Your task to perform on an android device: see sites visited before in the chrome app Image 0: 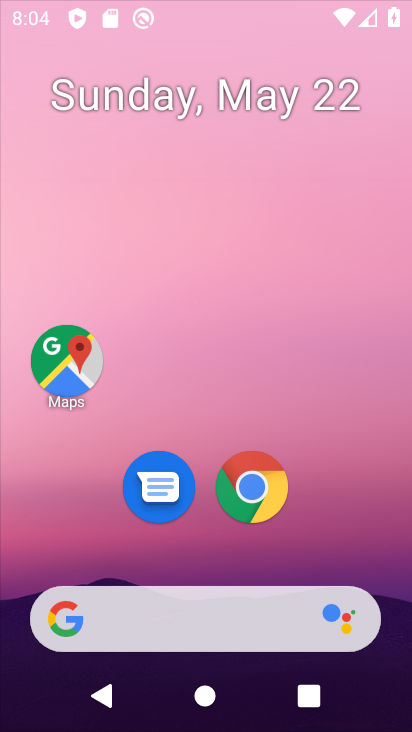
Step 0: drag from (396, 16) to (10, 413)
Your task to perform on an android device: see sites visited before in the chrome app Image 1: 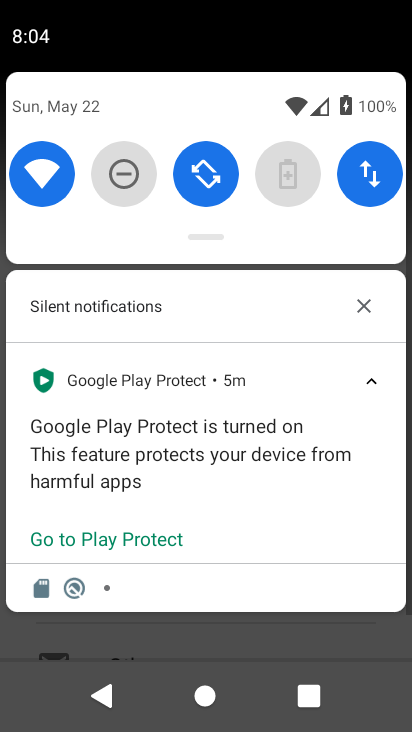
Step 1: drag from (266, 633) to (280, 91)
Your task to perform on an android device: see sites visited before in the chrome app Image 2: 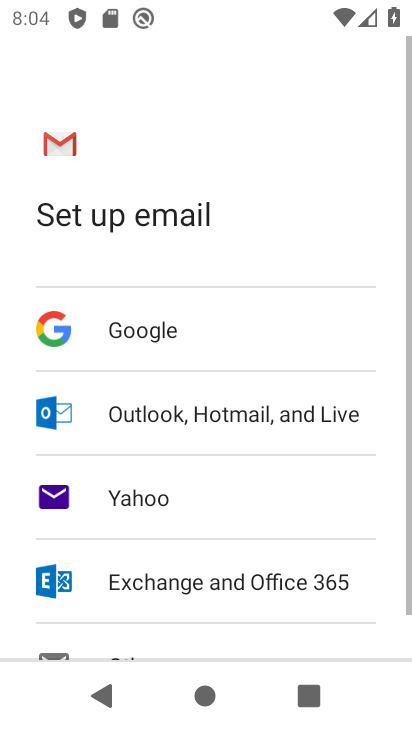
Step 2: press home button
Your task to perform on an android device: see sites visited before in the chrome app Image 3: 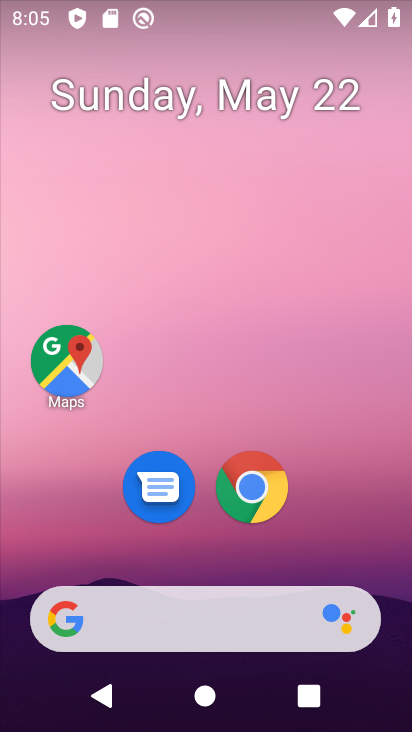
Step 3: click (253, 464)
Your task to perform on an android device: see sites visited before in the chrome app Image 4: 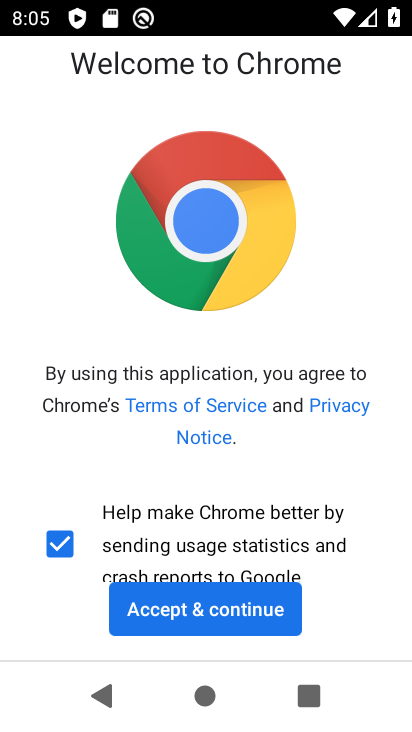
Step 4: click (224, 603)
Your task to perform on an android device: see sites visited before in the chrome app Image 5: 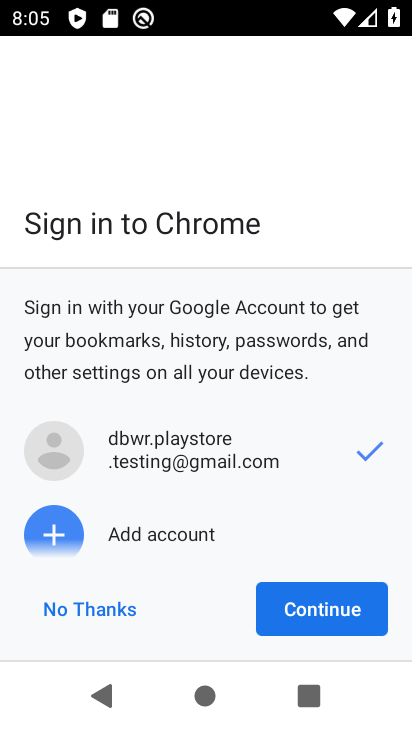
Step 5: click (73, 619)
Your task to perform on an android device: see sites visited before in the chrome app Image 6: 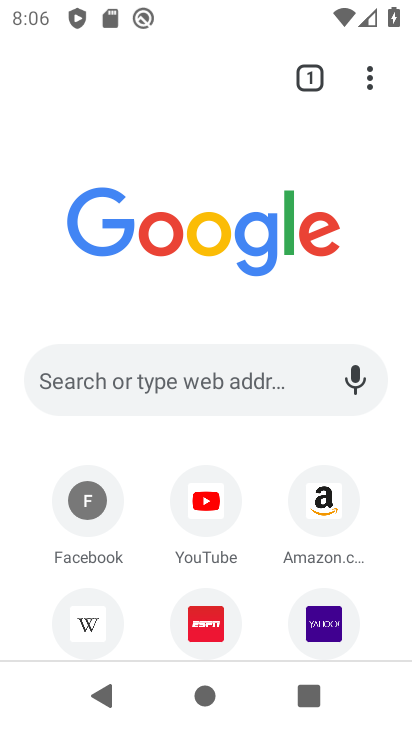
Step 6: drag from (366, 71) to (147, 401)
Your task to perform on an android device: see sites visited before in the chrome app Image 7: 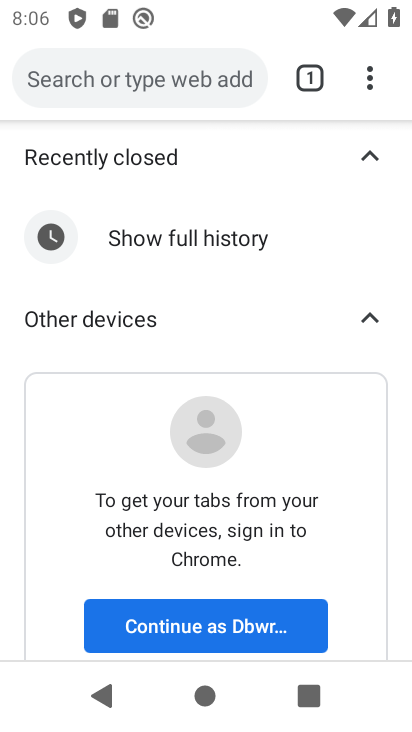
Step 7: click (166, 637)
Your task to perform on an android device: see sites visited before in the chrome app Image 8: 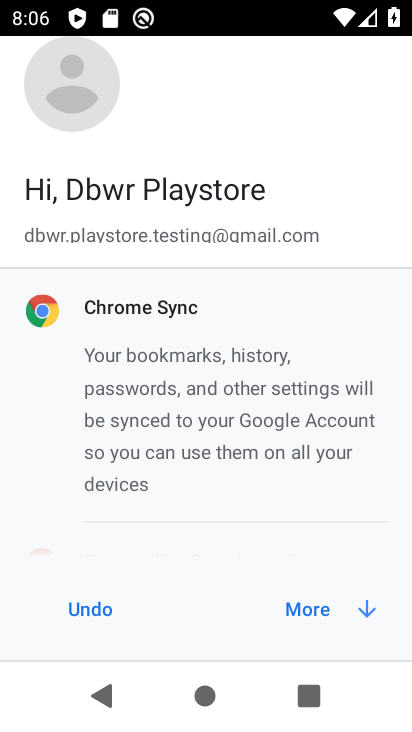
Step 8: click (310, 614)
Your task to perform on an android device: see sites visited before in the chrome app Image 9: 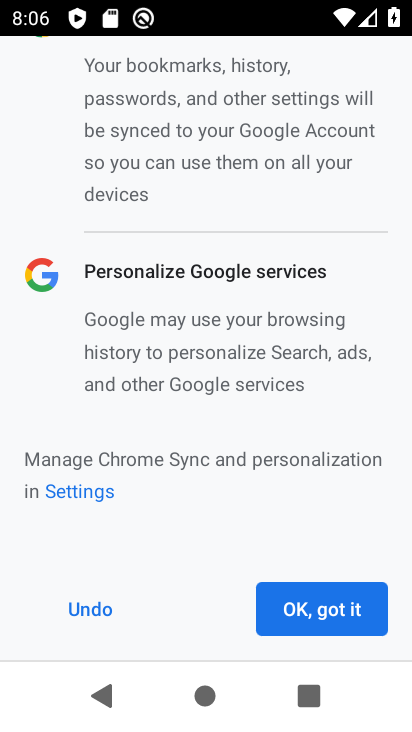
Step 9: click (310, 614)
Your task to perform on an android device: see sites visited before in the chrome app Image 10: 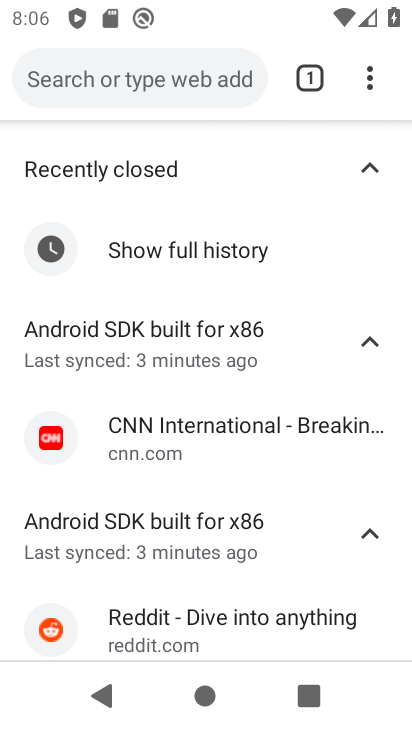
Step 10: task complete